Your task to perform on an android device: turn off improve location accuracy Image 0: 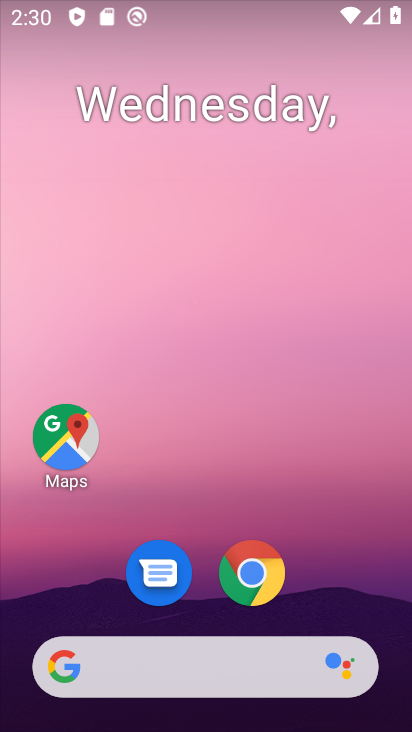
Step 0: drag from (263, 526) to (238, 145)
Your task to perform on an android device: turn off improve location accuracy Image 1: 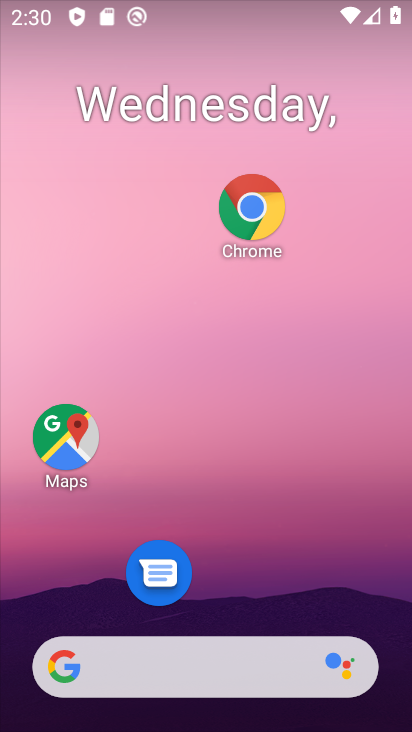
Step 1: drag from (302, 606) to (92, 12)
Your task to perform on an android device: turn off improve location accuracy Image 2: 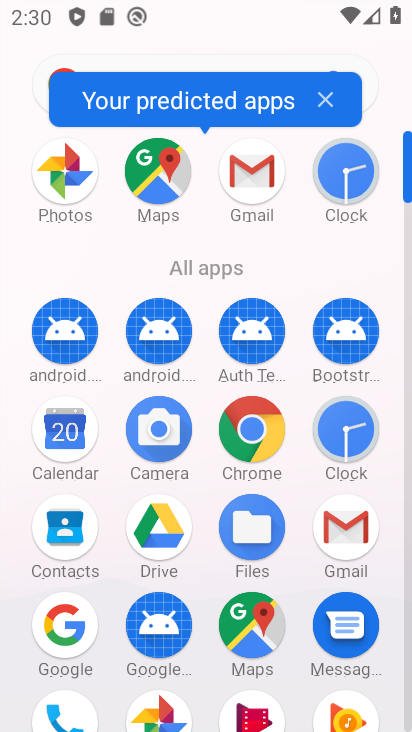
Step 2: drag from (225, 454) to (270, 86)
Your task to perform on an android device: turn off improve location accuracy Image 3: 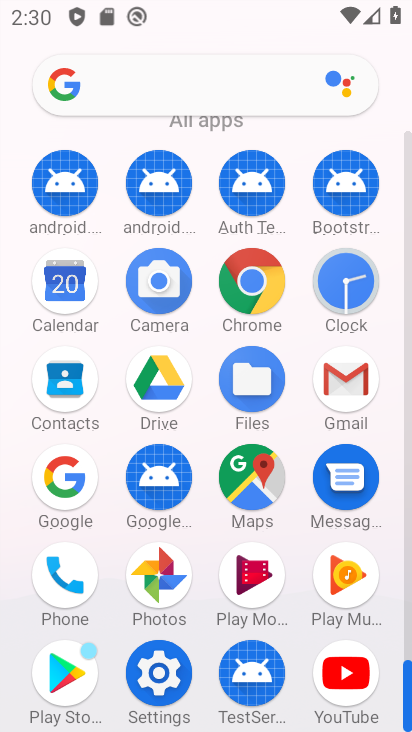
Step 3: click (155, 665)
Your task to perform on an android device: turn off improve location accuracy Image 4: 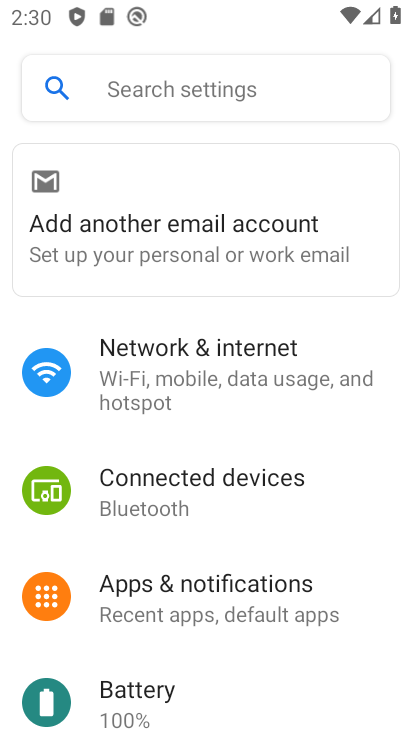
Step 4: drag from (233, 583) to (343, 204)
Your task to perform on an android device: turn off improve location accuracy Image 5: 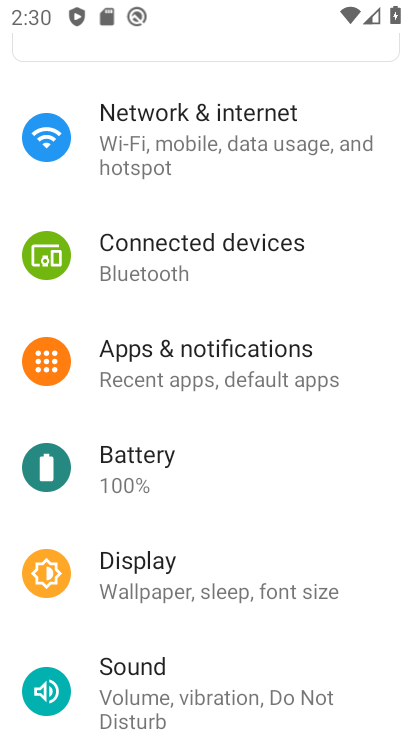
Step 5: drag from (234, 560) to (299, 250)
Your task to perform on an android device: turn off improve location accuracy Image 6: 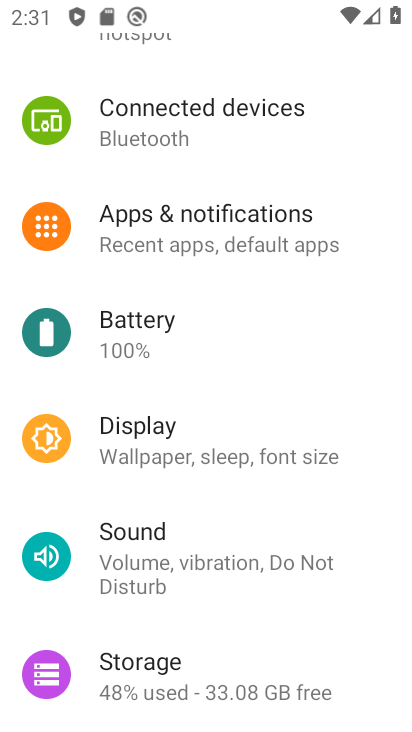
Step 6: drag from (192, 594) to (232, 214)
Your task to perform on an android device: turn off improve location accuracy Image 7: 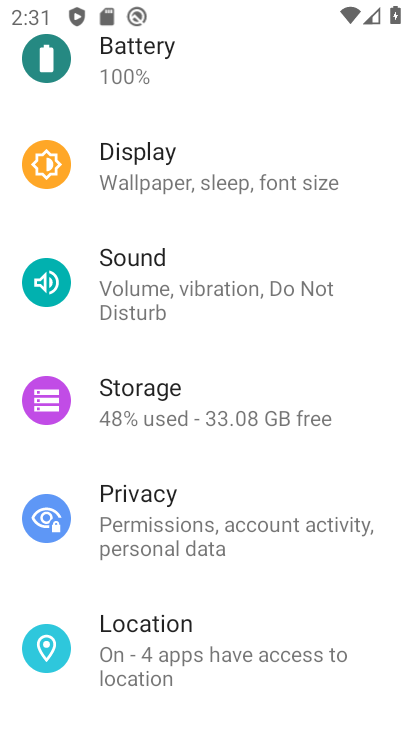
Step 7: click (208, 631)
Your task to perform on an android device: turn off improve location accuracy Image 8: 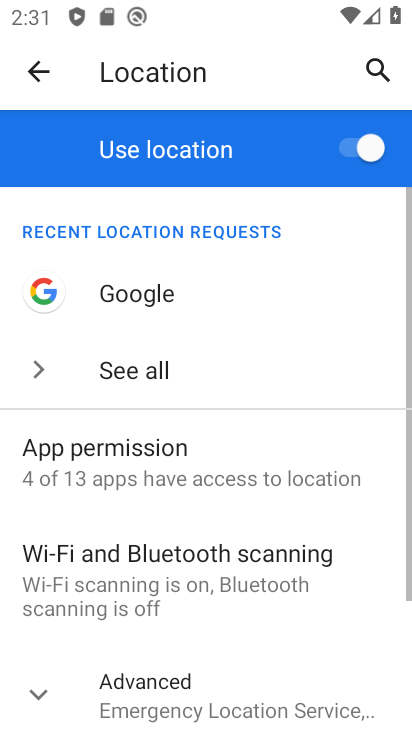
Step 8: click (199, 665)
Your task to perform on an android device: turn off improve location accuracy Image 9: 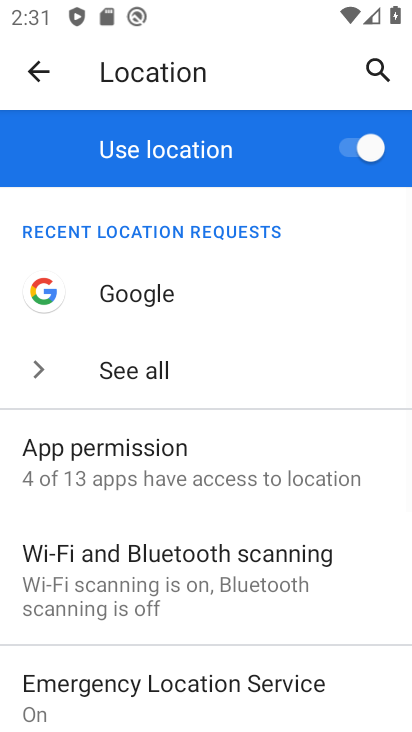
Step 9: drag from (220, 603) to (291, 139)
Your task to perform on an android device: turn off improve location accuracy Image 10: 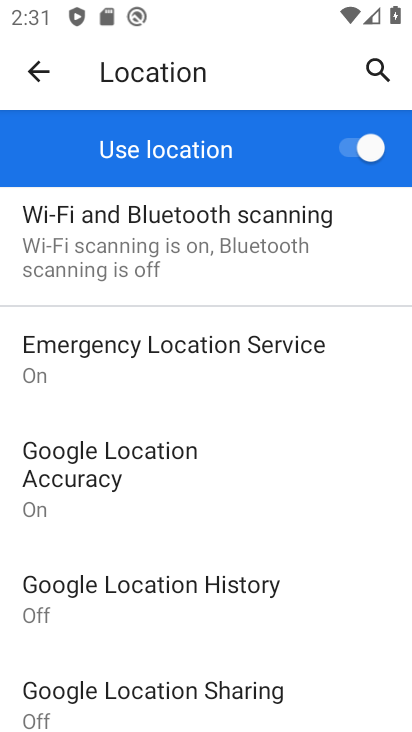
Step 10: click (150, 474)
Your task to perform on an android device: turn off improve location accuracy Image 11: 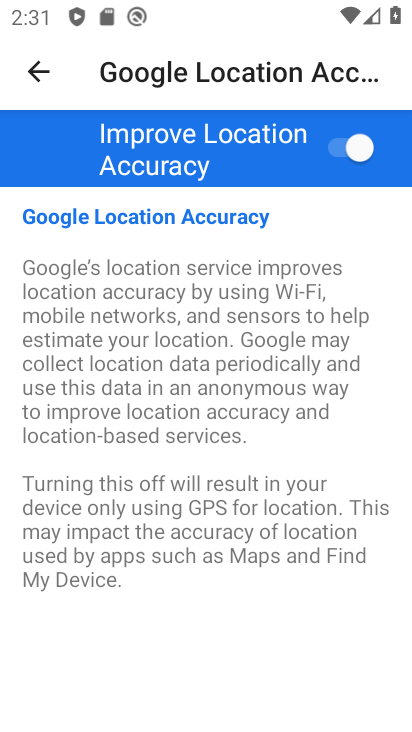
Step 11: click (333, 150)
Your task to perform on an android device: turn off improve location accuracy Image 12: 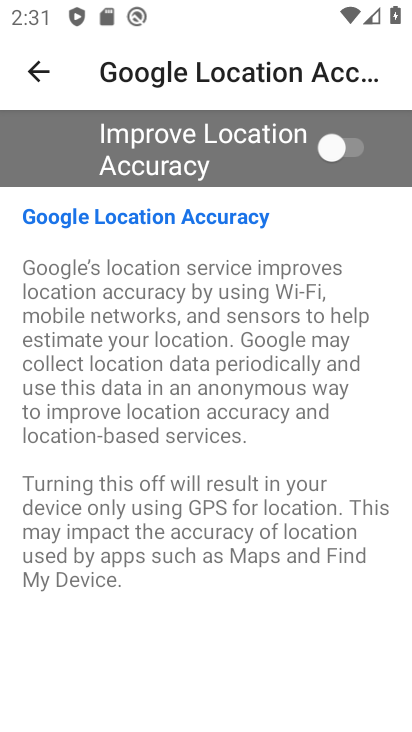
Step 12: task complete